Your task to perform on an android device: Open the calendar app, open the side menu, and click the "Day" option Image 0: 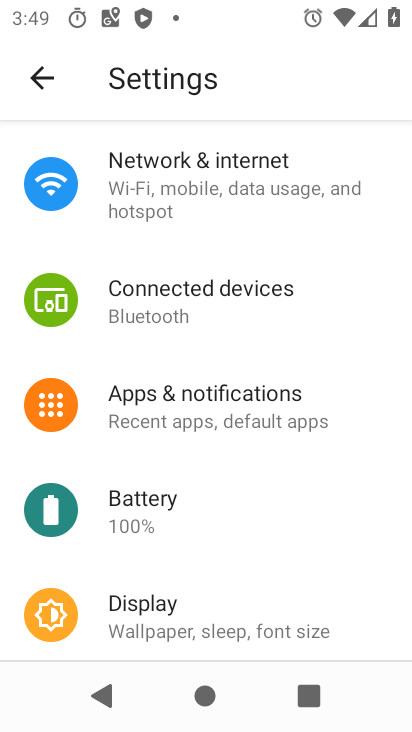
Step 0: press home button
Your task to perform on an android device: Open the calendar app, open the side menu, and click the "Day" option Image 1: 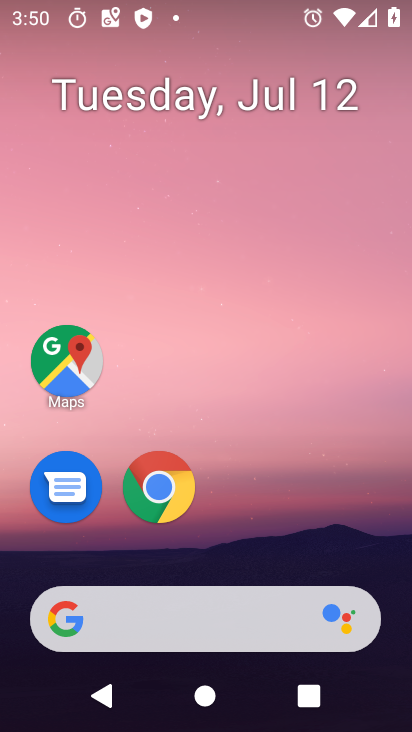
Step 1: drag from (211, 589) to (172, 119)
Your task to perform on an android device: Open the calendar app, open the side menu, and click the "Day" option Image 2: 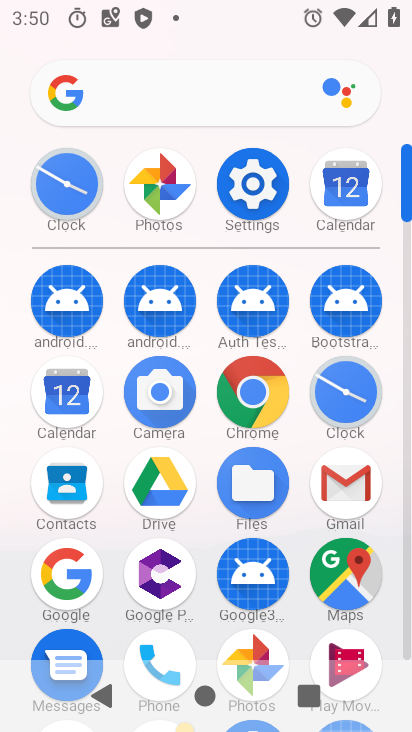
Step 2: click (334, 200)
Your task to perform on an android device: Open the calendar app, open the side menu, and click the "Day" option Image 3: 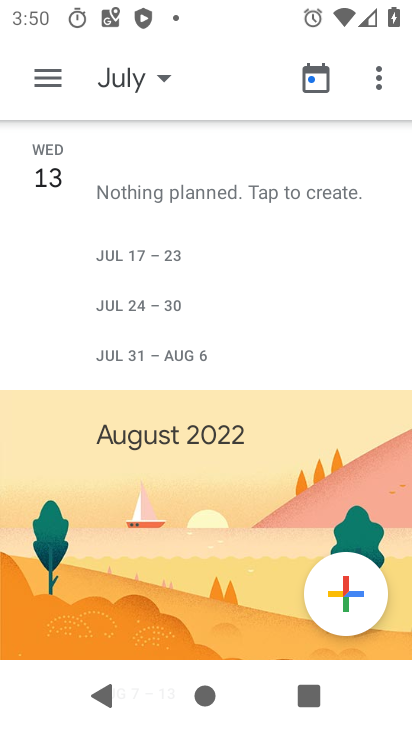
Step 3: click (55, 75)
Your task to perform on an android device: Open the calendar app, open the side menu, and click the "Day" option Image 4: 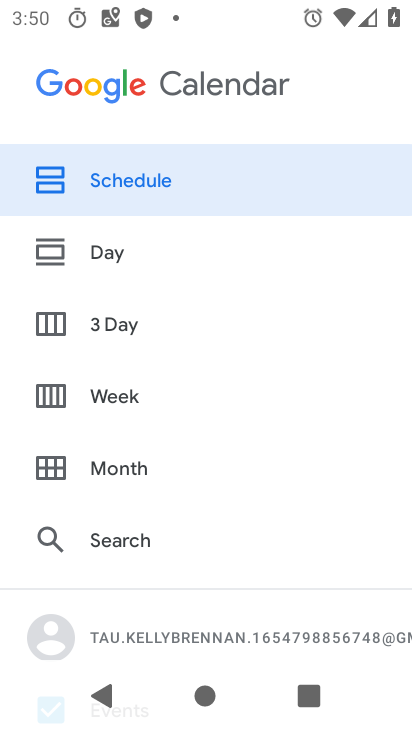
Step 4: click (121, 269)
Your task to perform on an android device: Open the calendar app, open the side menu, and click the "Day" option Image 5: 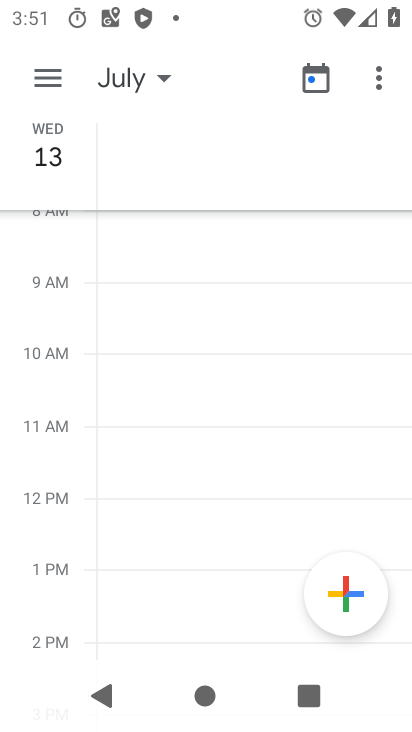
Step 5: task complete